Your task to perform on an android device: set the timer Image 0: 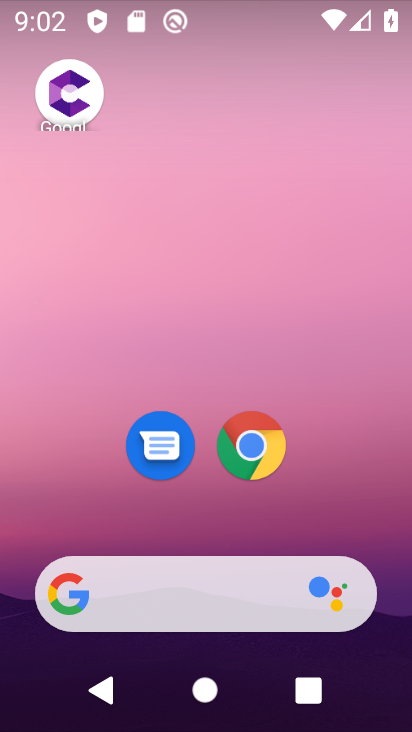
Step 0: drag from (238, 554) to (266, 73)
Your task to perform on an android device: set the timer Image 1: 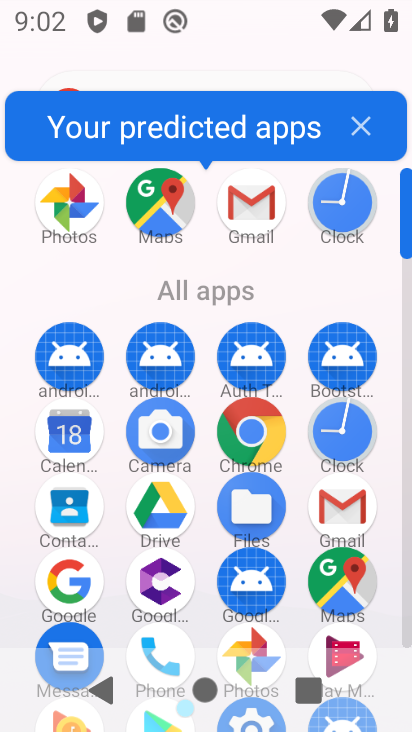
Step 1: click (328, 444)
Your task to perform on an android device: set the timer Image 2: 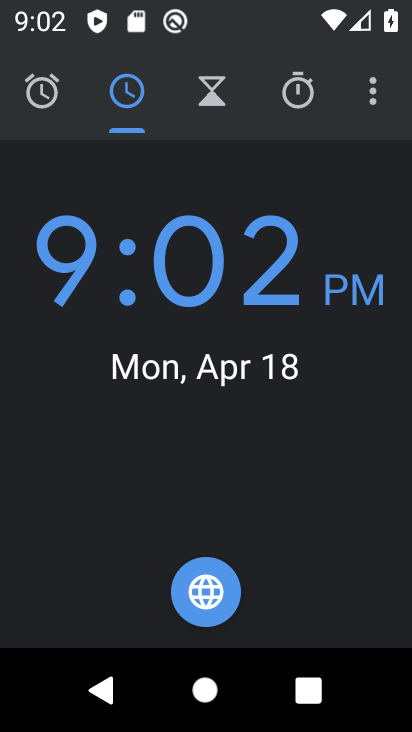
Step 2: click (238, 95)
Your task to perform on an android device: set the timer Image 3: 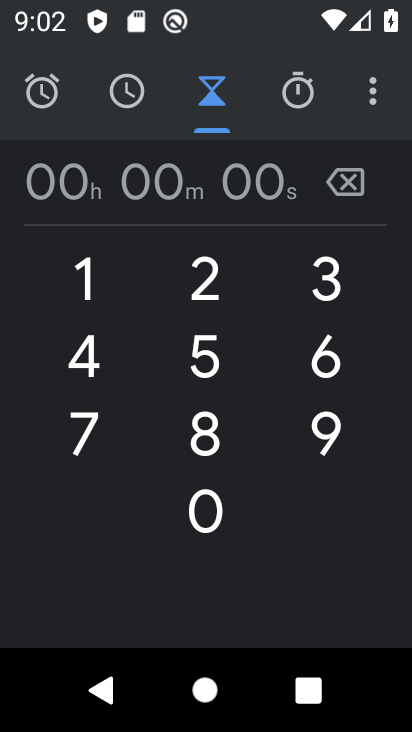
Step 3: click (215, 287)
Your task to perform on an android device: set the timer Image 4: 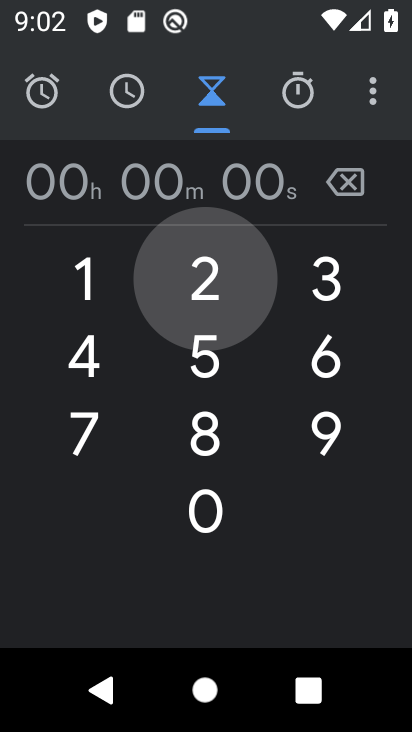
Step 4: click (215, 287)
Your task to perform on an android device: set the timer Image 5: 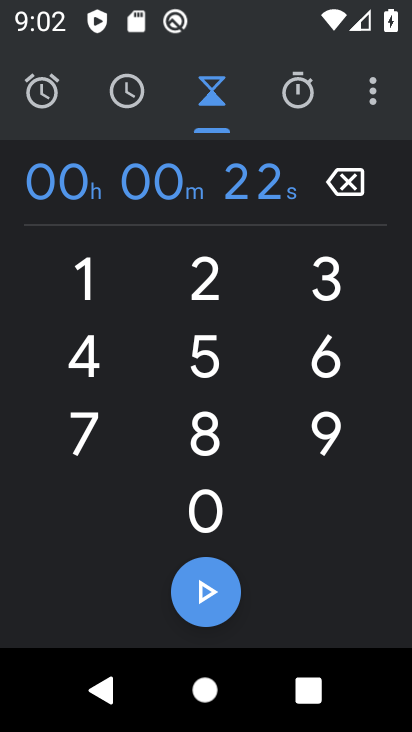
Step 5: click (196, 577)
Your task to perform on an android device: set the timer Image 6: 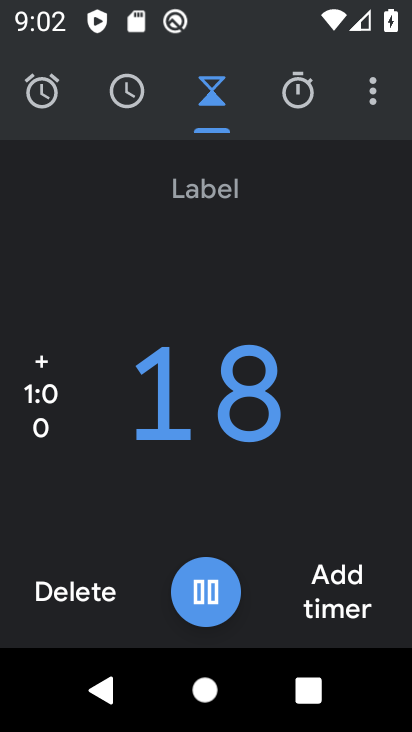
Step 6: task complete